Your task to perform on an android device: open a bookmark in the chrome app Image 0: 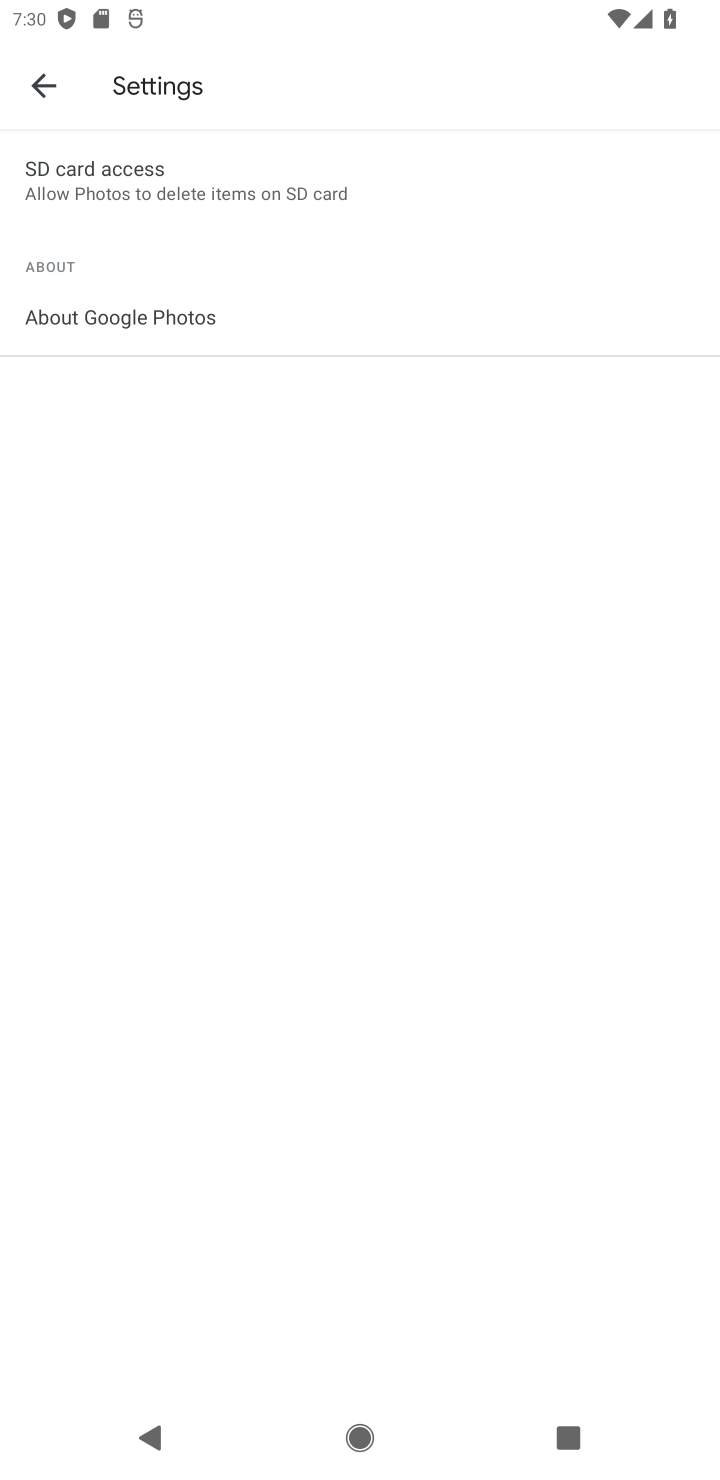
Step 0: press home button
Your task to perform on an android device: open a bookmark in the chrome app Image 1: 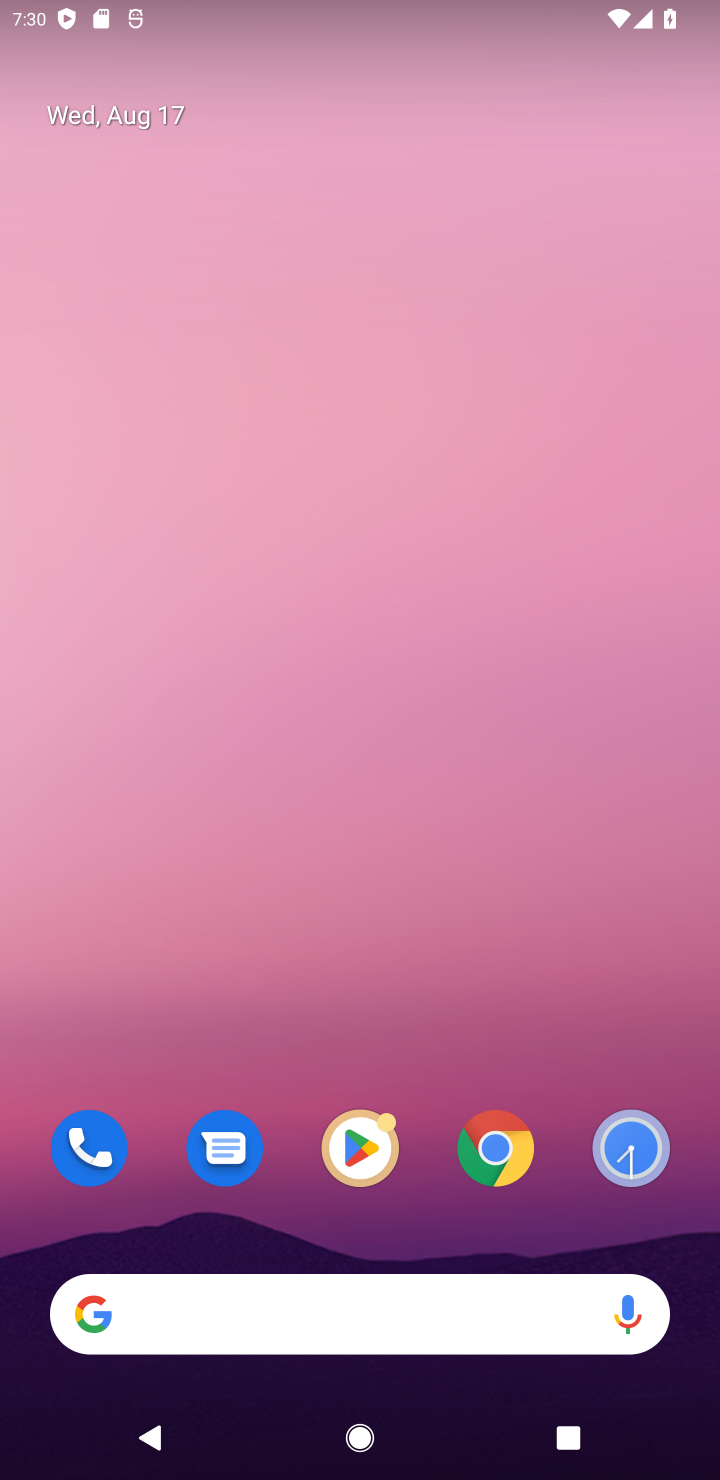
Step 1: click (498, 1162)
Your task to perform on an android device: open a bookmark in the chrome app Image 2: 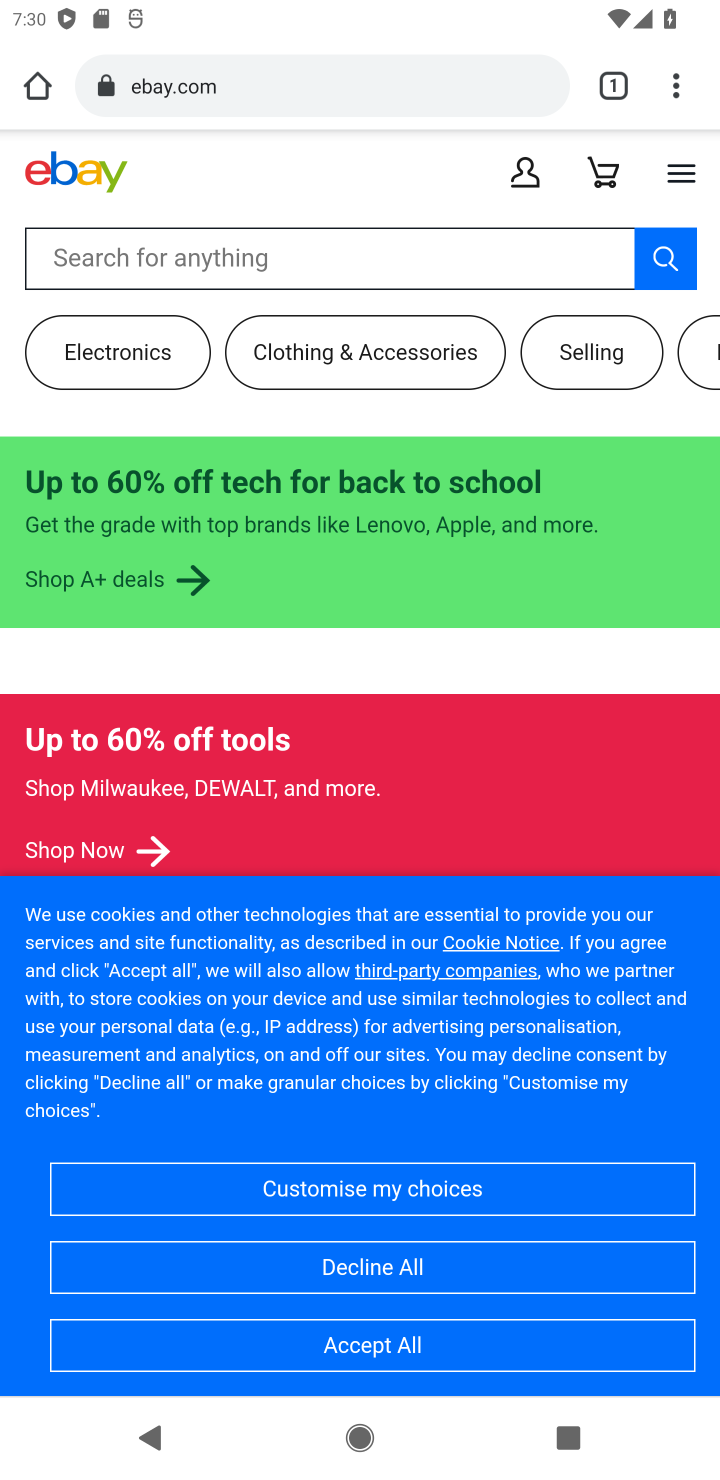
Step 2: click (673, 95)
Your task to perform on an android device: open a bookmark in the chrome app Image 3: 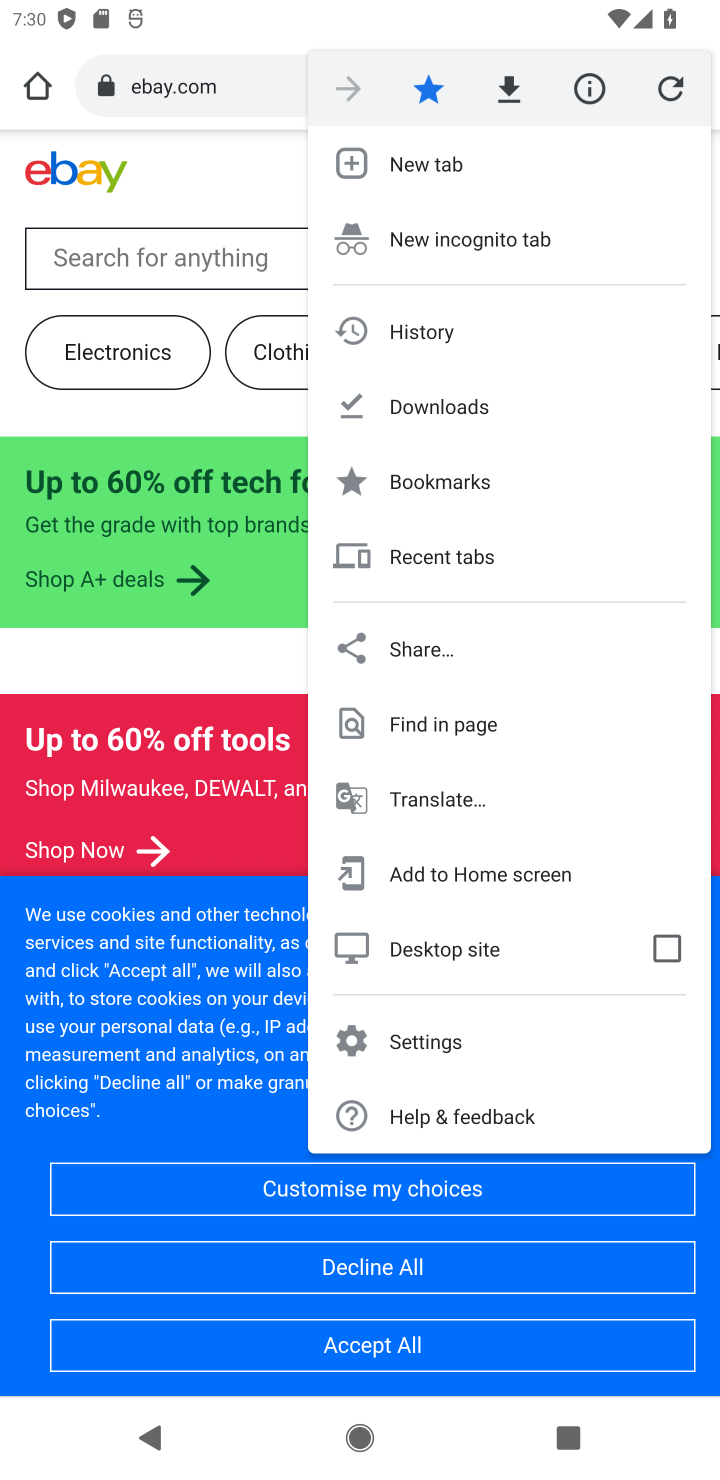
Step 3: click (445, 490)
Your task to perform on an android device: open a bookmark in the chrome app Image 4: 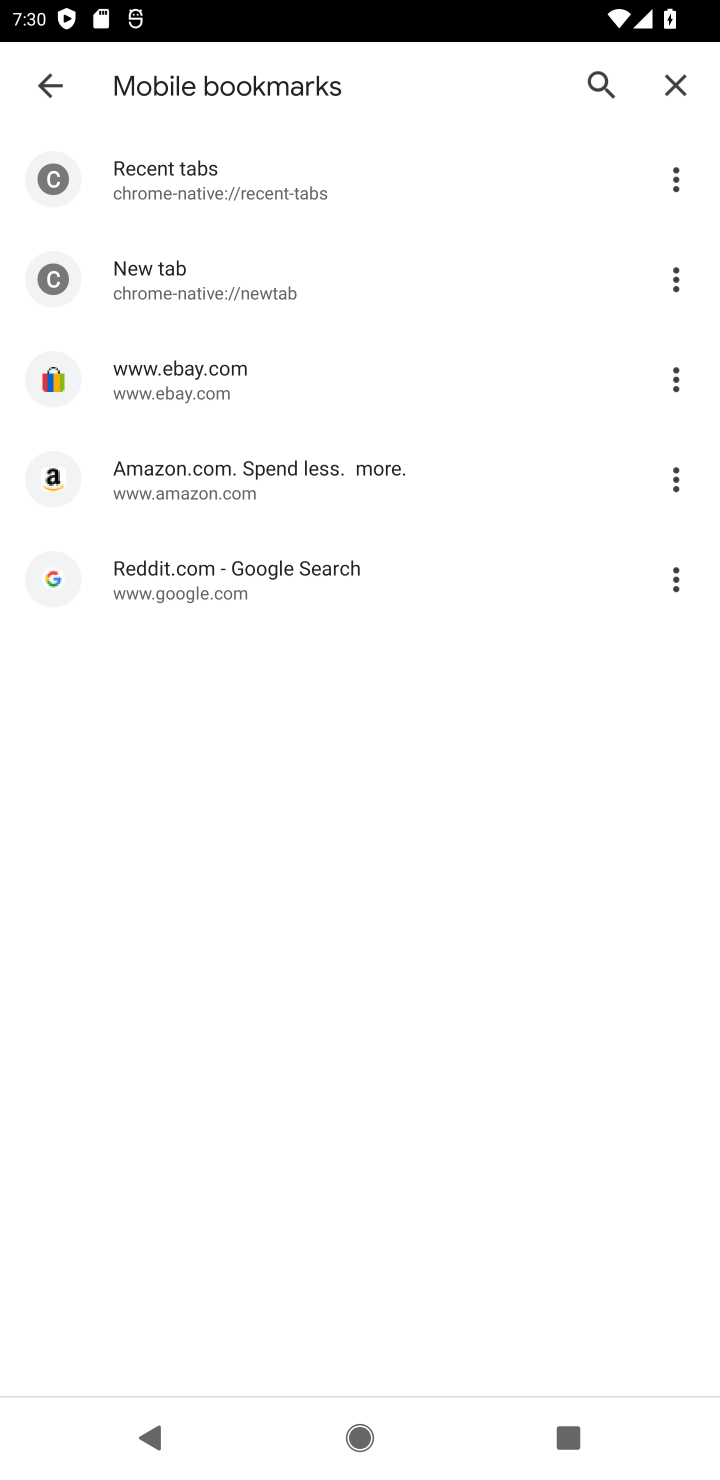
Step 4: task complete